Your task to perform on an android device: change notification settings in the gmail app Image 0: 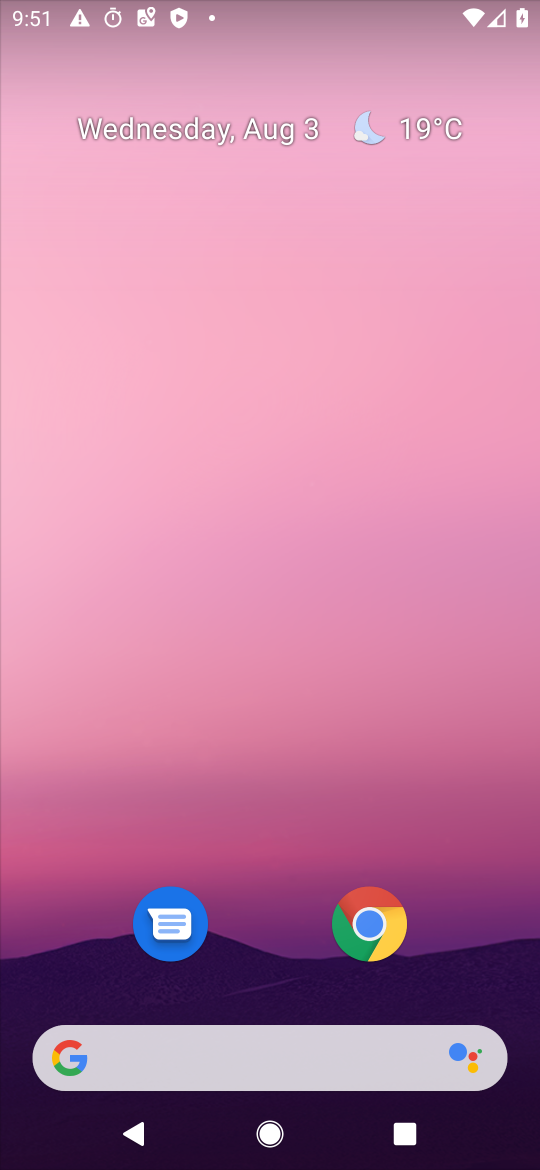
Step 0: drag from (288, 992) to (294, 5)
Your task to perform on an android device: change notification settings in the gmail app Image 1: 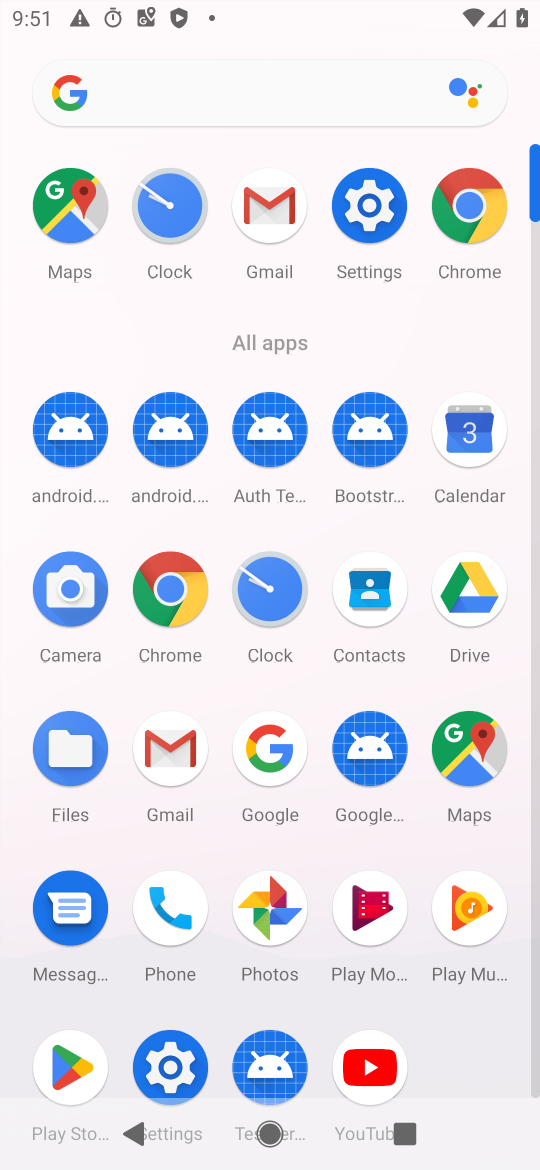
Step 1: click (262, 190)
Your task to perform on an android device: change notification settings in the gmail app Image 2: 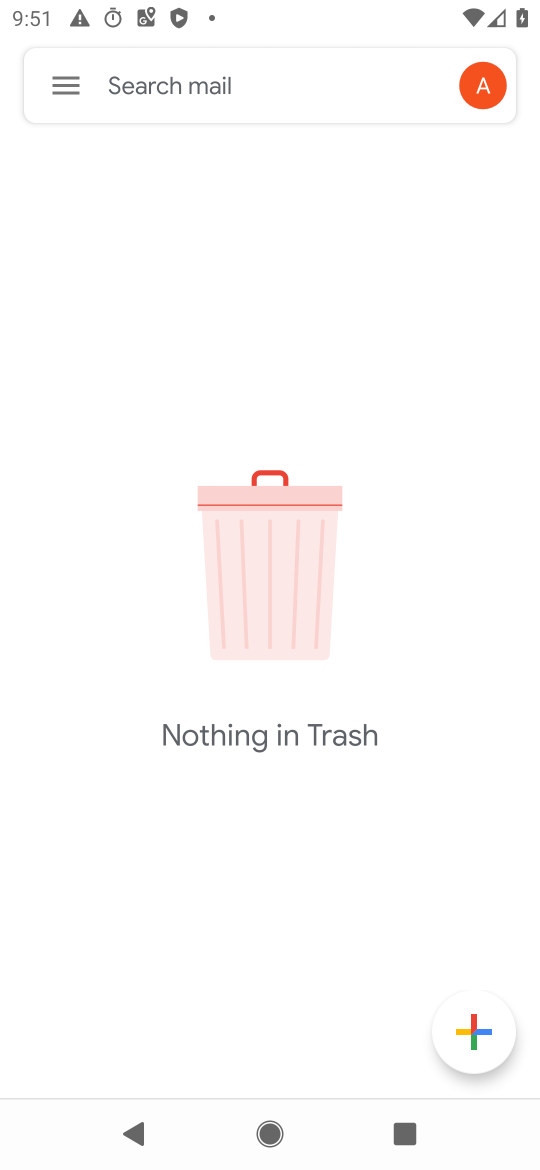
Step 2: click (58, 82)
Your task to perform on an android device: change notification settings in the gmail app Image 3: 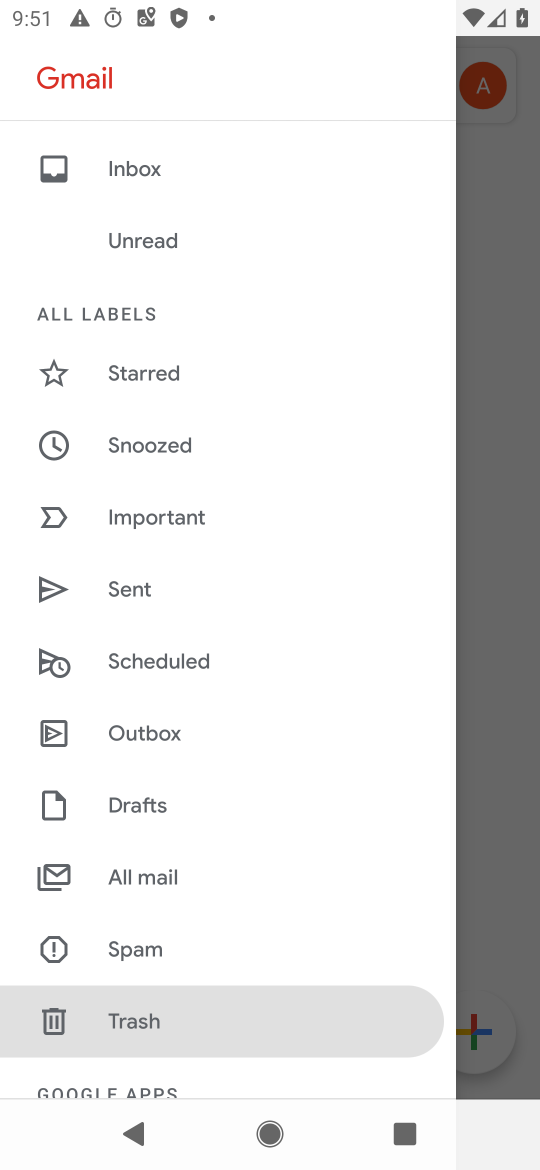
Step 3: drag from (215, 922) to (274, 33)
Your task to perform on an android device: change notification settings in the gmail app Image 4: 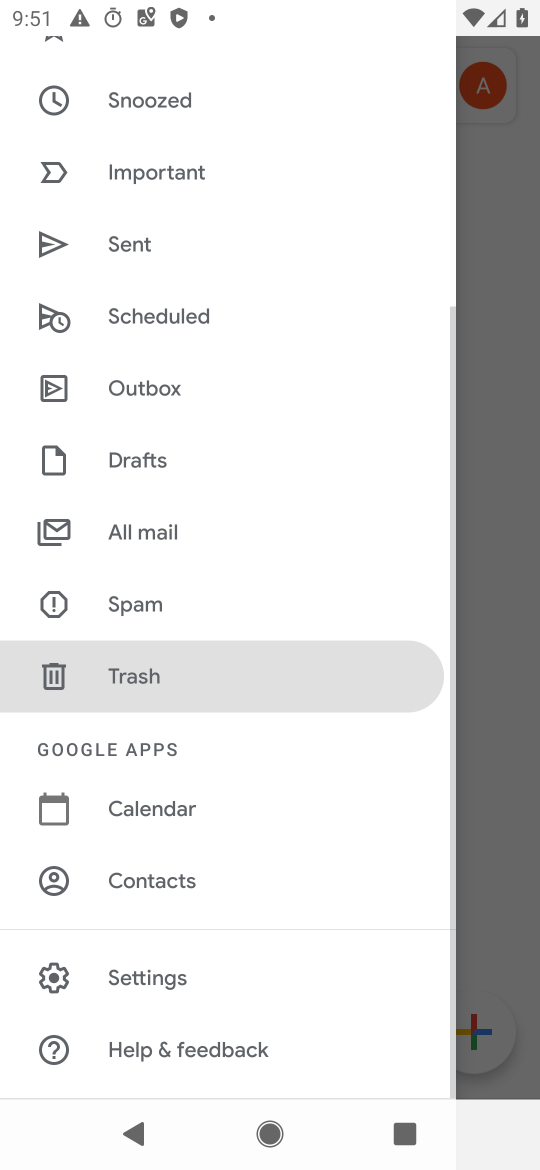
Step 4: click (189, 966)
Your task to perform on an android device: change notification settings in the gmail app Image 5: 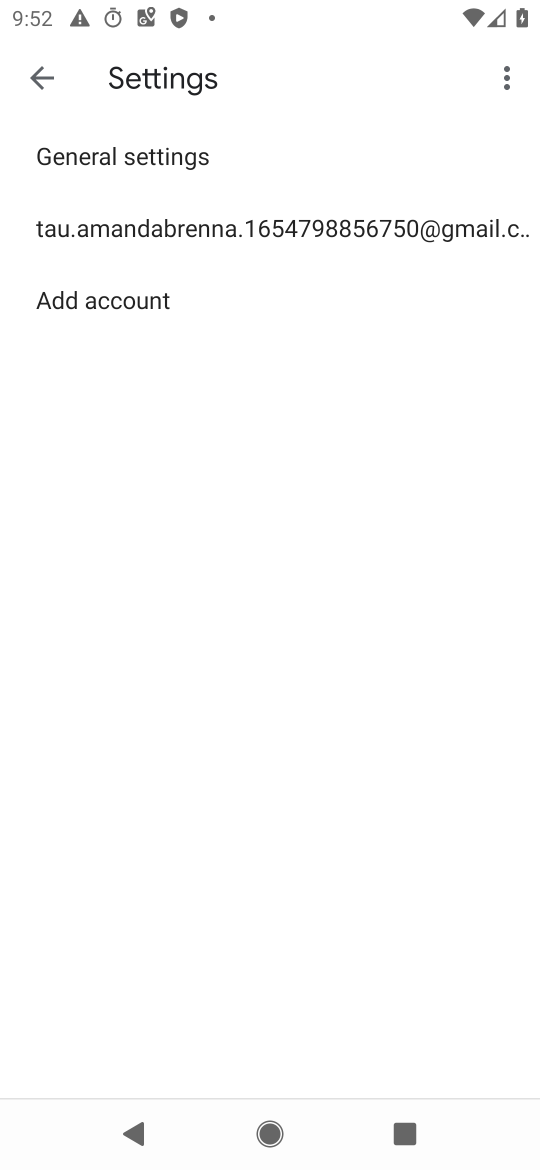
Step 5: click (216, 148)
Your task to perform on an android device: change notification settings in the gmail app Image 6: 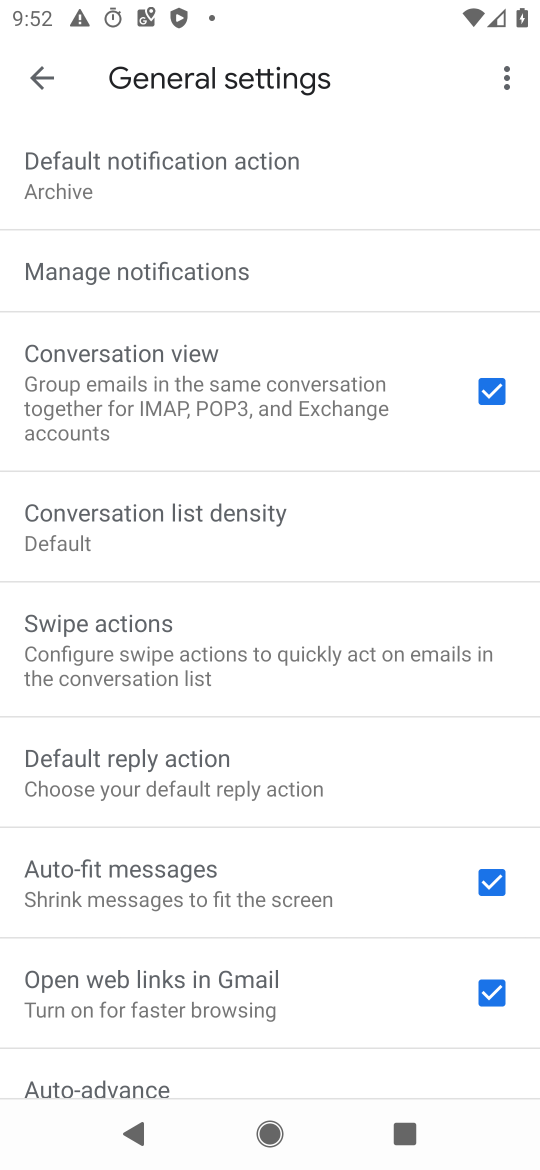
Step 6: click (278, 268)
Your task to perform on an android device: change notification settings in the gmail app Image 7: 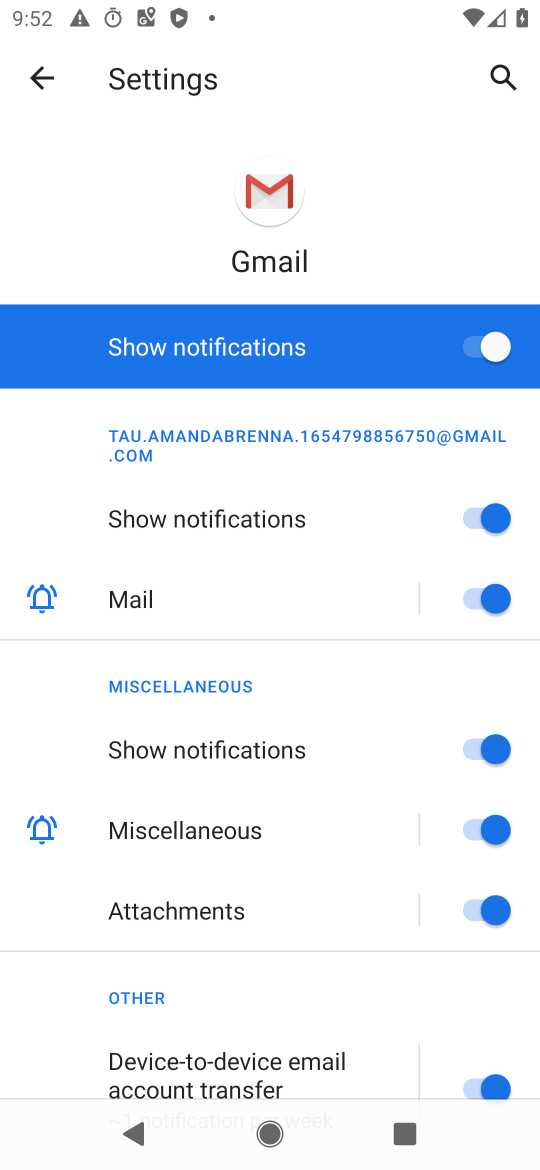
Step 7: click (473, 343)
Your task to perform on an android device: change notification settings in the gmail app Image 8: 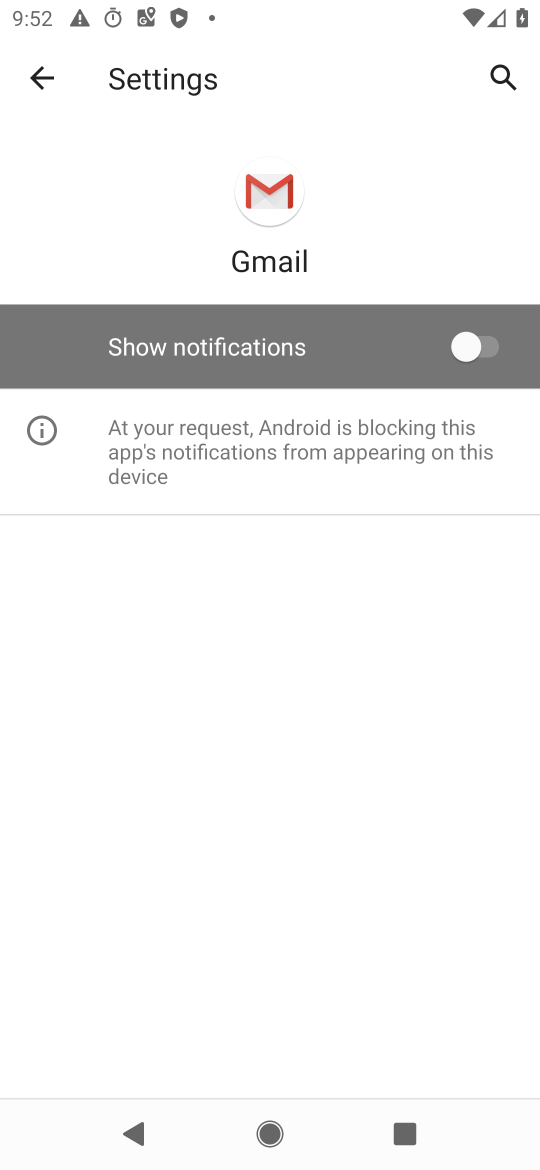
Step 8: task complete